Your task to perform on an android device: Open Maps and search for coffee Image 0: 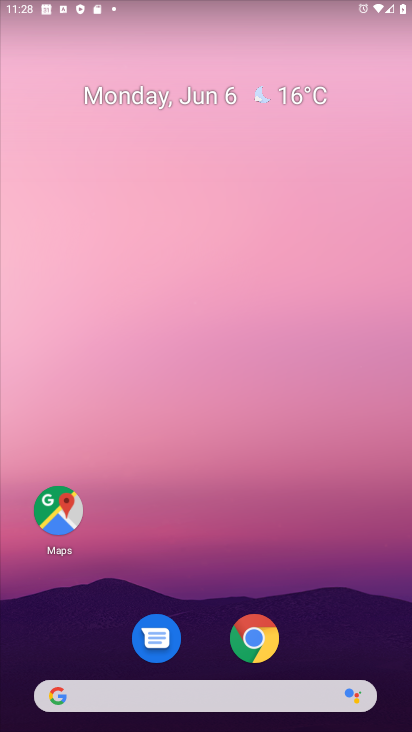
Step 0: drag from (251, 719) to (219, 214)
Your task to perform on an android device: Open Maps and search for coffee Image 1: 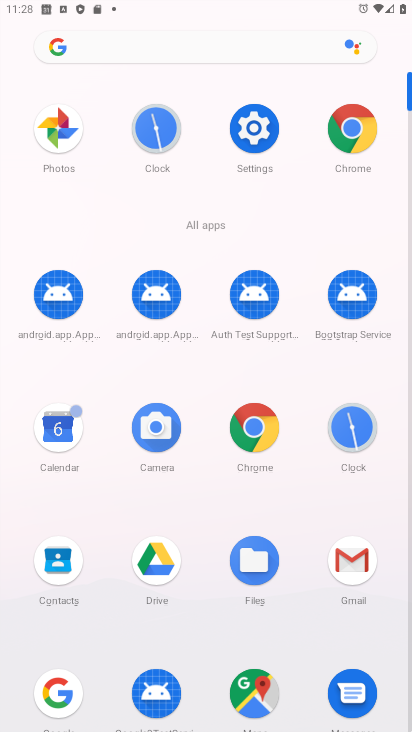
Step 1: click (255, 672)
Your task to perform on an android device: Open Maps and search for coffee Image 2: 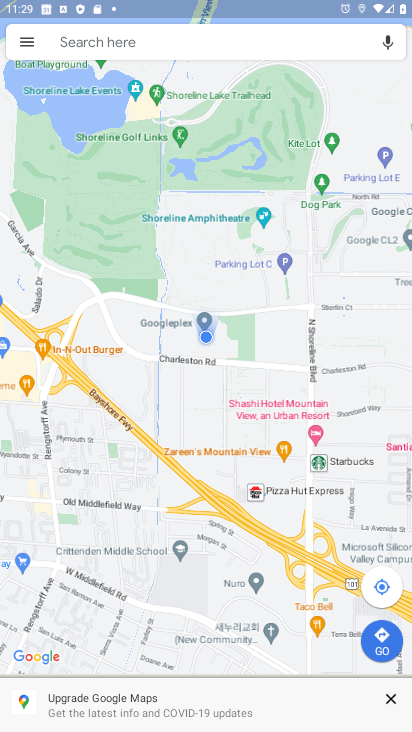
Step 2: click (101, 32)
Your task to perform on an android device: Open Maps and search for coffee Image 3: 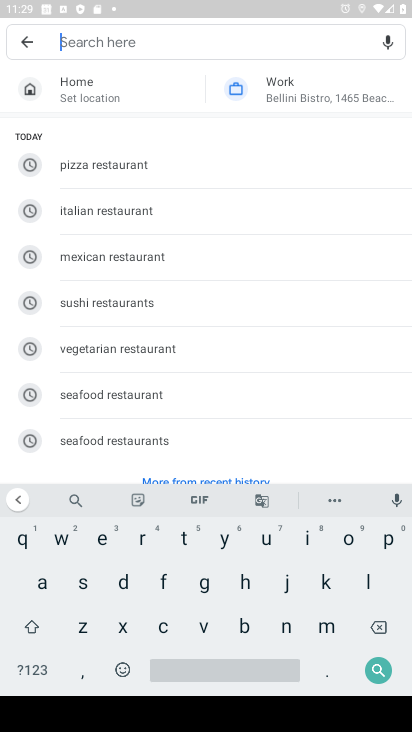
Step 3: click (162, 625)
Your task to perform on an android device: Open Maps and search for coffee Image 4: 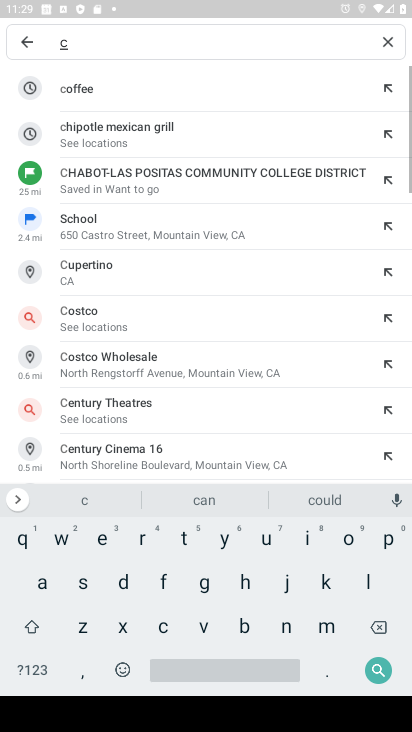
Step 4: click (130, 92)
Your task to perform on an android device: Open Maps and search for coffee Image 5: 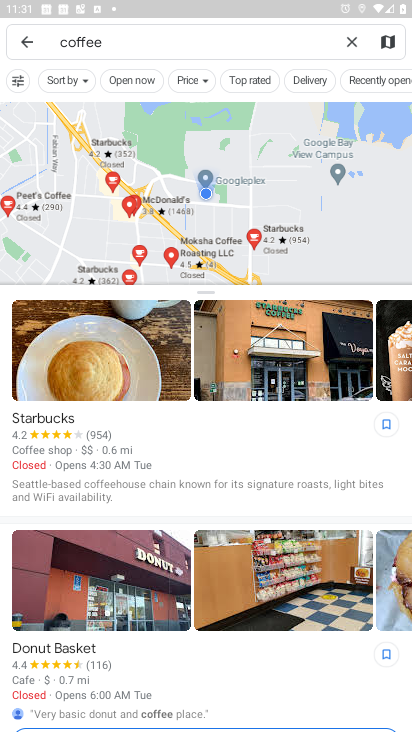
Step 5: task complete